Your task to perform on an android device: star an email in the gmail app Image 0: 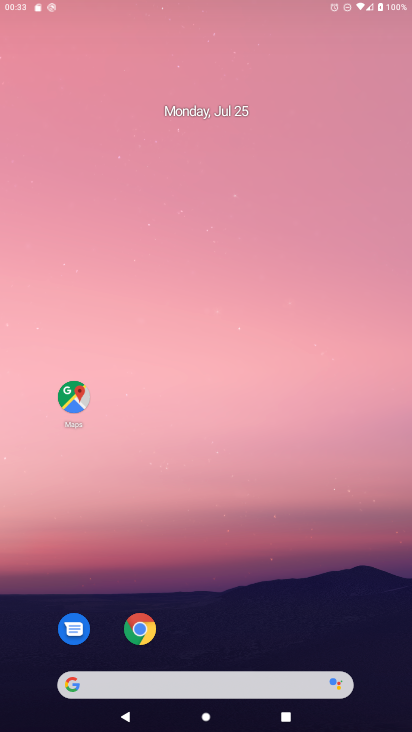
Step 0: drag from (234, 606) to (275, 343)
Your task to perform on an android device: star an email in the gmail app Image 1: 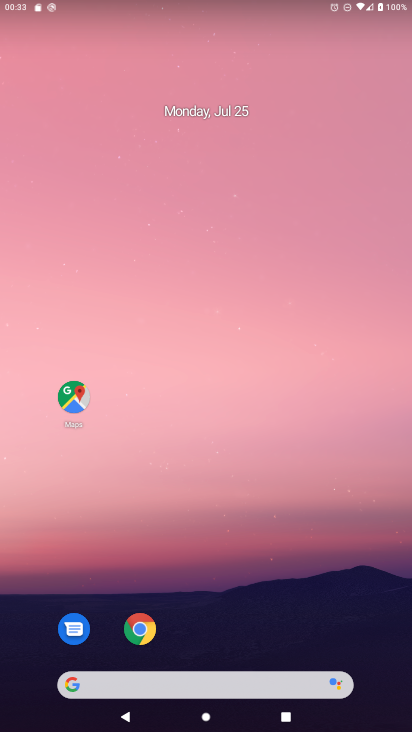
Step 1: drag from (193, 627) to (241, 296)
Your task to perform on an android device: star an email in the gmail app Image 2: 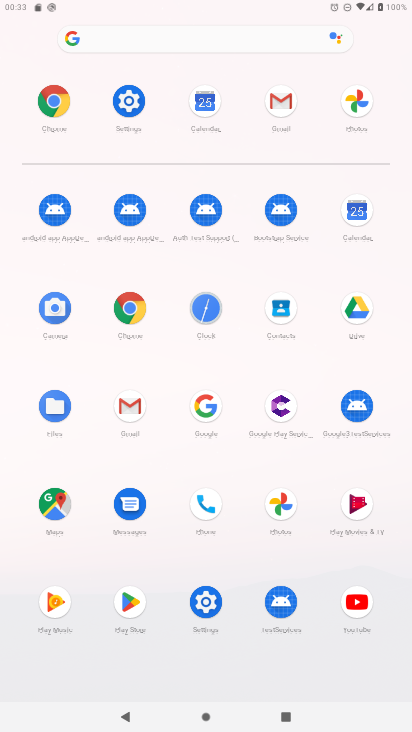
Step 2: click (126, 409)
Your task to perform on an android device: star an email in the gmail app Image 3: 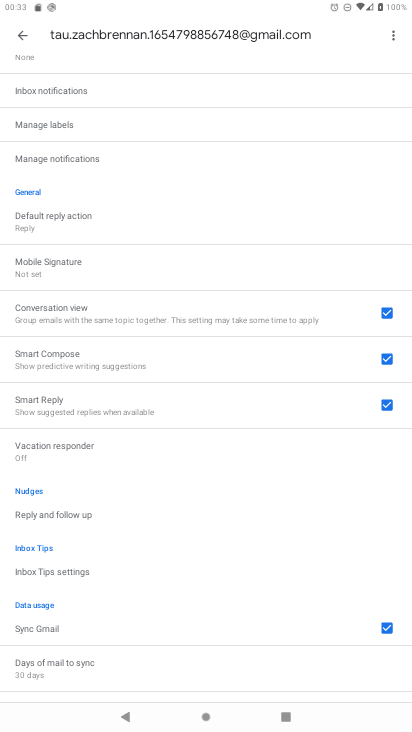
Step 3: drag from (156, 239) to (217, 592)
Your task to perform on an android device: star an email in the gmail app Image 4: 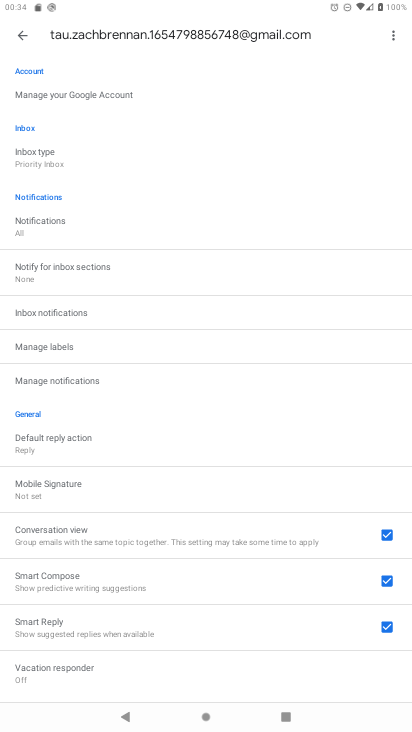
Step 4: click (18, 30)
Your task to perform on an android device: star an email in the gmail app Image 5: 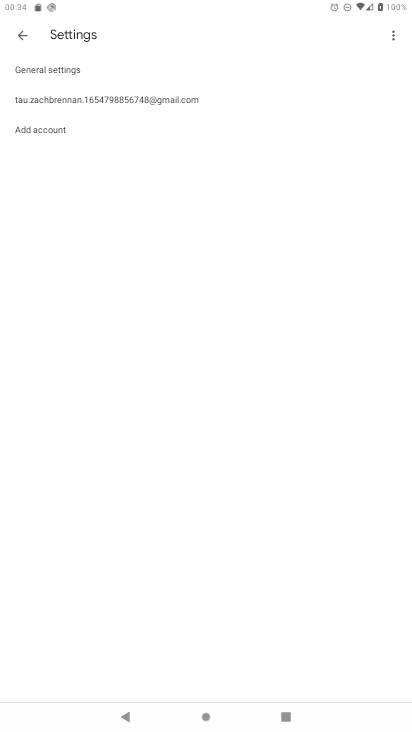
Step 5: click (37, 39)
Your task to perform on an android device: star an email in the gmail app Image 6: 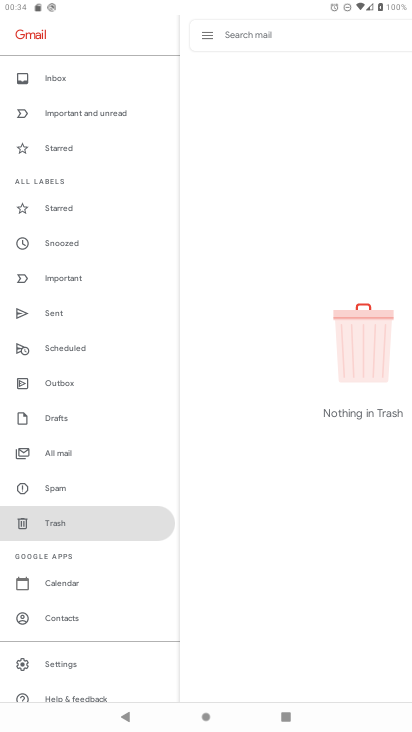
Step 6: click (70, 84)
Your task to perform on an android device: star an email in the gmail app Image 7: 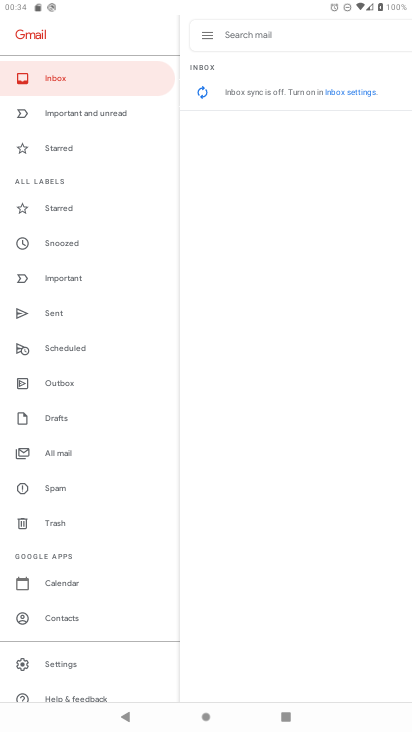
Step 7: task complete